Your task to perform on an android device: check the backup settings in the google photos Image 0: 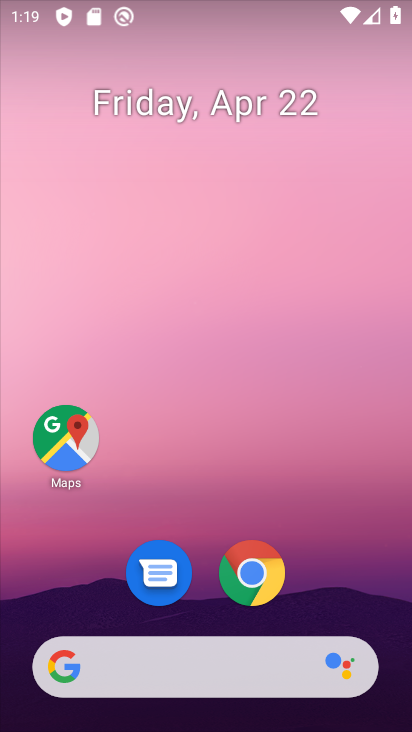
Step 0: drag from (371, 609) to (218, 104)
Your task to perform on an android device: check the backup settings in the google photos Image 1: 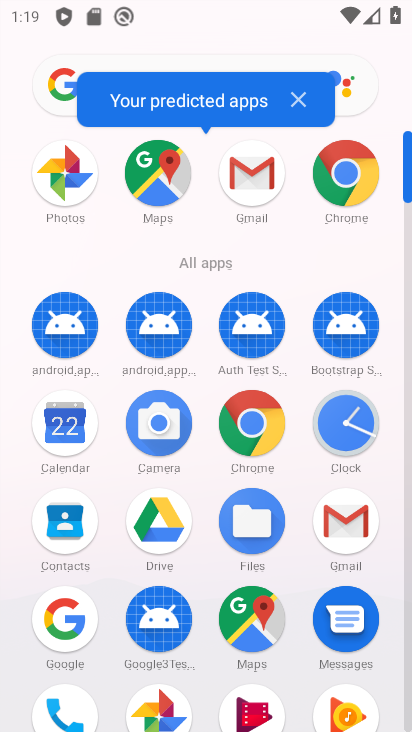
Step 1: click (174, 692)
Your task to perform on an android device: check the backup settings in the google photos Image 2: 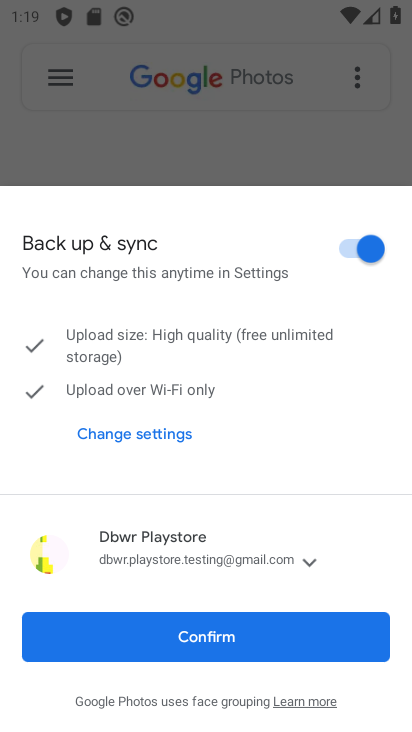
Step 2: click (194, 640)
Your task to perform on an android device: check the backup settings in the google photos Image 3: 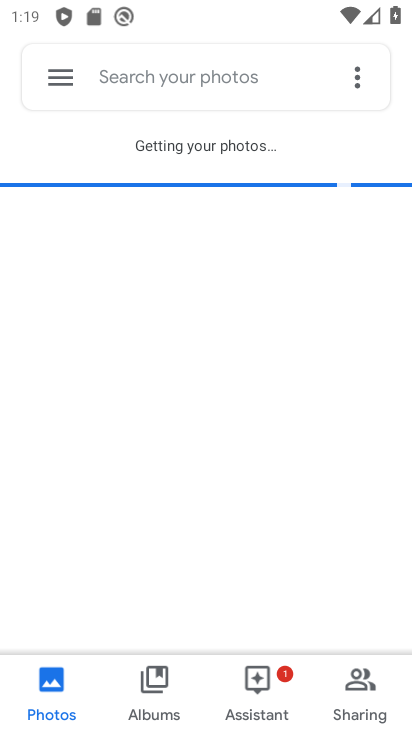
Step 3: click (56, 89)
Your task to perform on an android device: check the backup settings in the google photos Image 4: 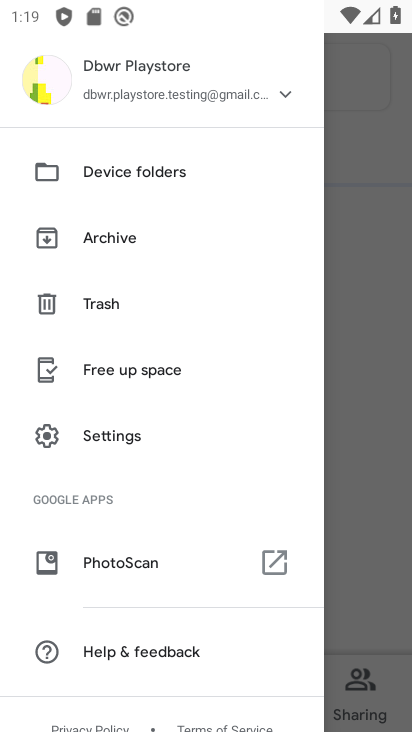
Step 4: click (146, 440)
Your task to perform on an android device: check the backup settings in the google photos Image 5: 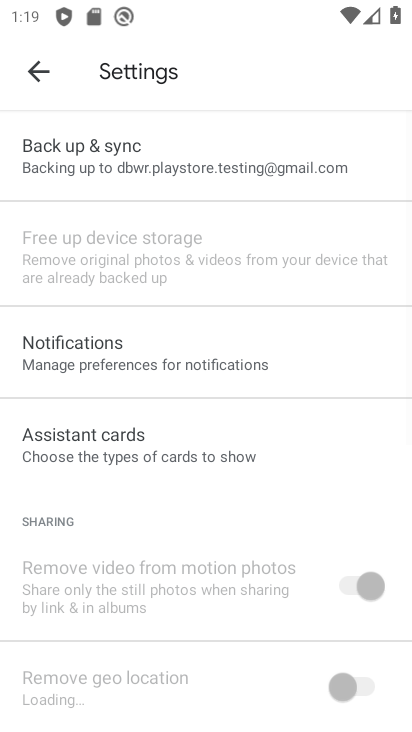
Step 5: click (148, 184)
Your task to perform on an android device: check the backup settings in the google photos Image 6: 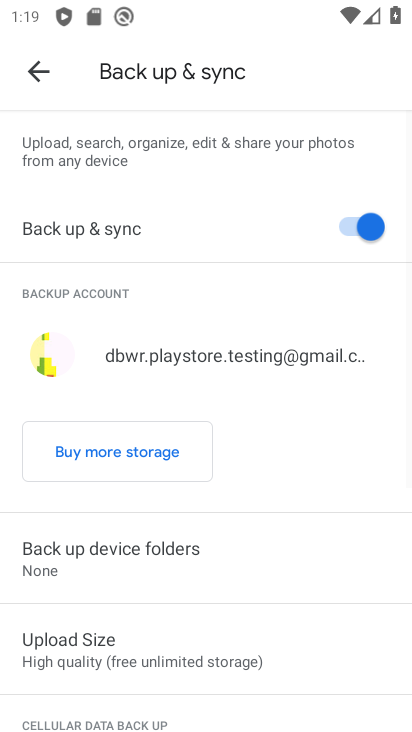
Step 6: task complete